Your task to perform on an android device: toggle priority inbox in the gmail app Image 0: 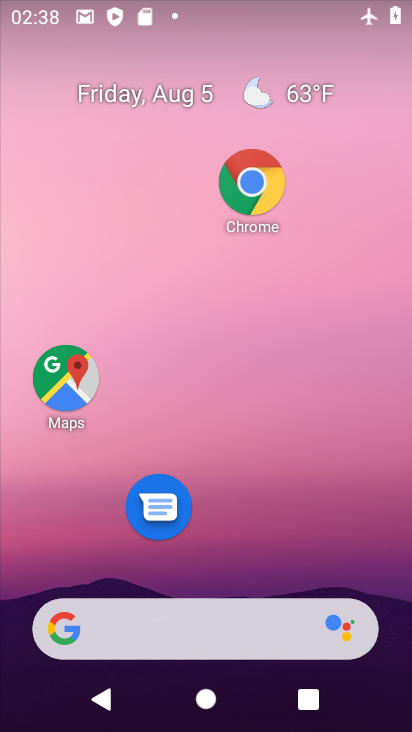
Step 0: drag from (221, 493) to (229, 3)
Your task to perform on an android device: toggle priority inbox in the gmail app Image 1: 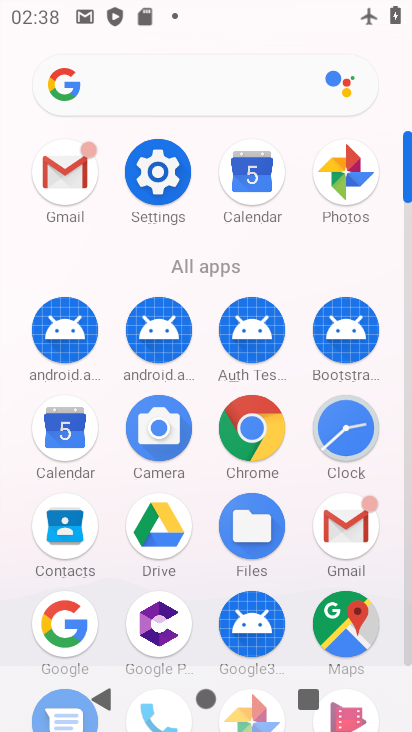
Step 1: click (347, 548)
Your task to perform on an android device: toggle priority inbox in the gmail app Image 2: 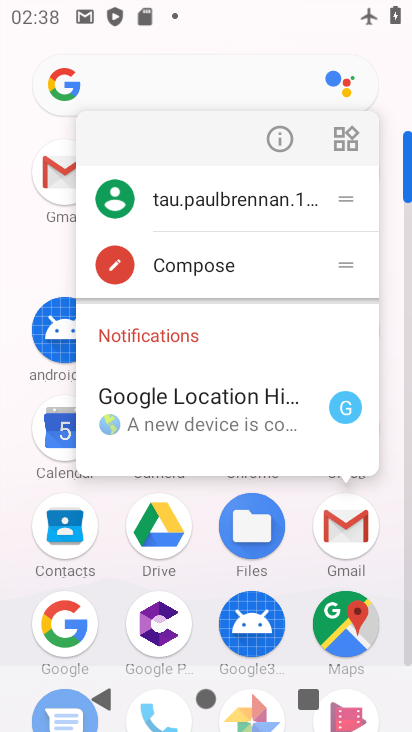
Step 2: click (347, 548)
Your task to perform on an android device: toggle priority inbox in the gmail app Image 3: 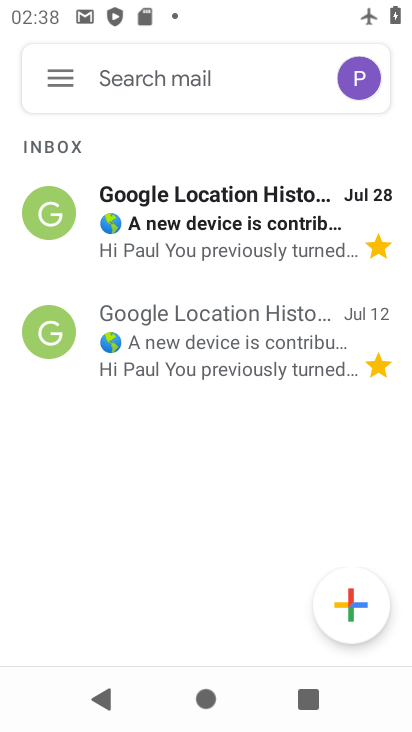
Step 3: click (55, 74)
Your task to perform on an android device: toggle priority inbox in the gmail app Image 4: 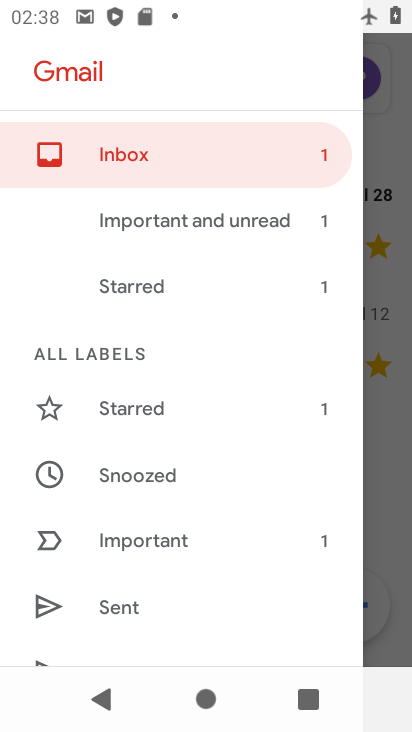
Step 4: drag from (138, 585) to (207, 8)
Your task to perform on an android device: toggle priority inbox in the gmail app Image 5: 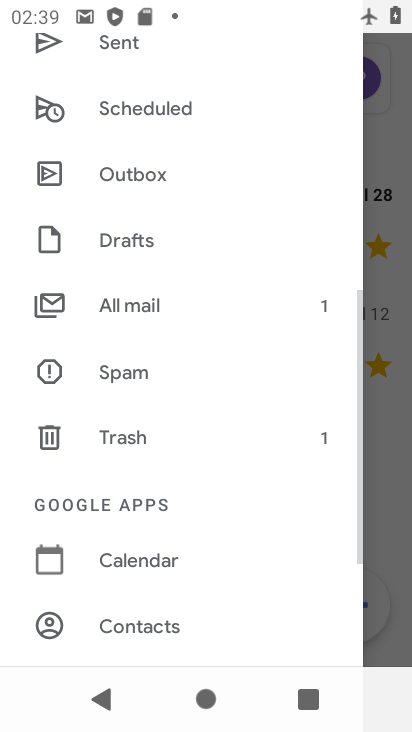
Step 5: drag from (182, 559) to (211, 73)
Your task to perform on an android device: toggle priority inbox in the gmail app Image 6: 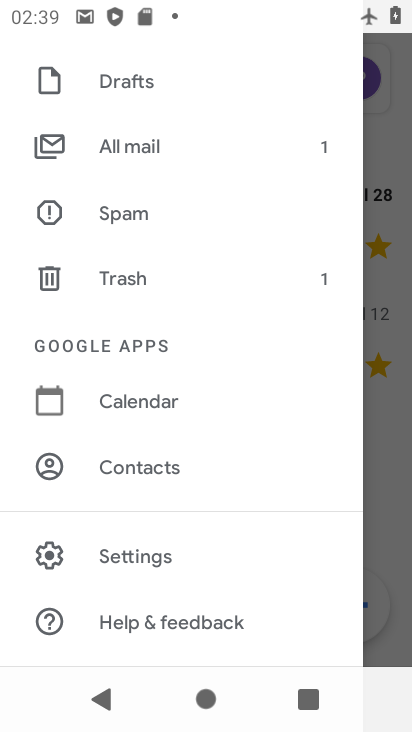
Step 6: click (137, 566)
Your task to perform on an android device: toggle priority inbox in the gmail app Image 7: 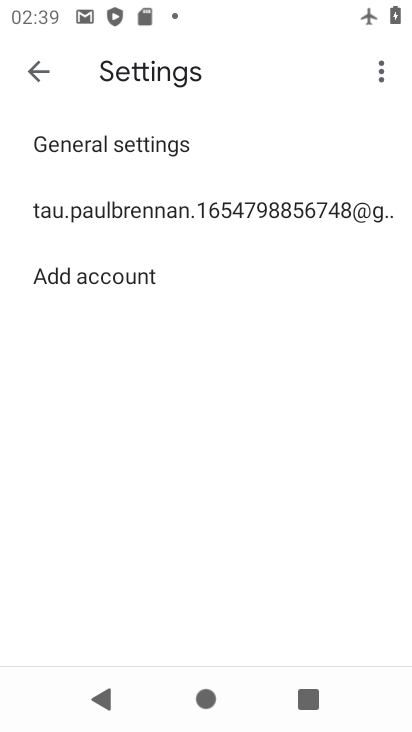
Step 7: click (101, 221)
Your task to perform on an android device: toggle priority inbox in the gmail app Image 8: 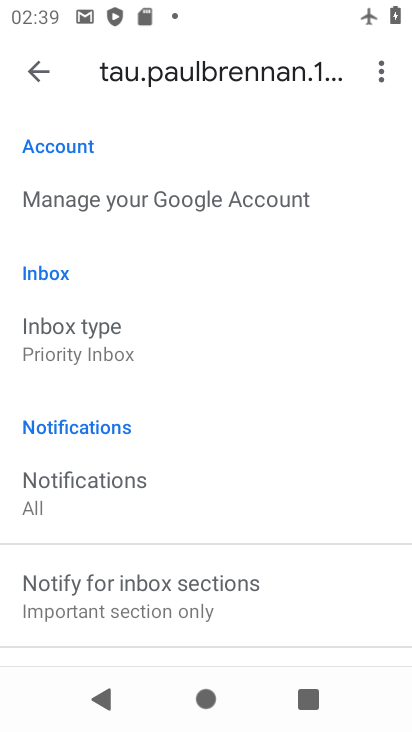
Step 8: click (103, 350)
Your task to perform on an android device: toggle priority inbox in the gmail app Image 9: 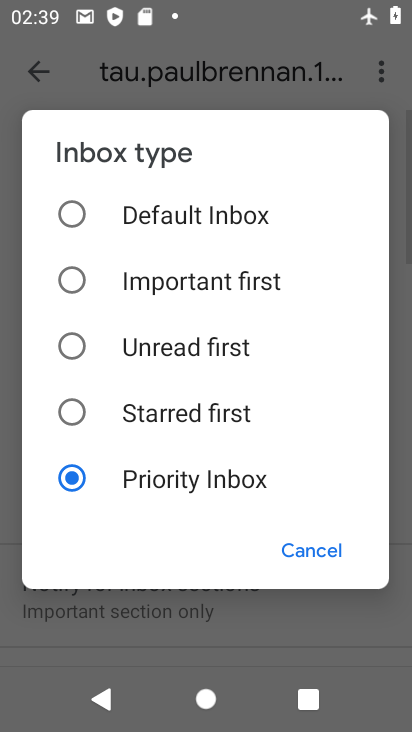
Step 9: click (159, 212)
Your task to perform on an android device: toggle priority inbox in the gmail app Image 10: 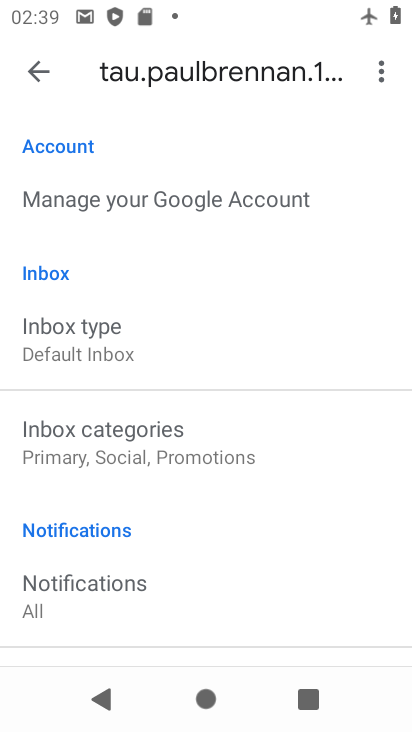
Step 10: task complete